Your task to perform on an android device: Go to sound settings Image 0: 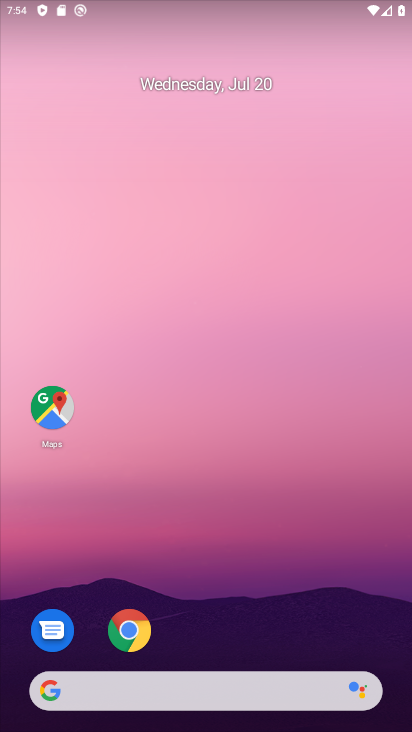
Step 0: drag from (256, 606) to (181, 95)
Your task to perform on an android device: Go to sound settings Image 1: 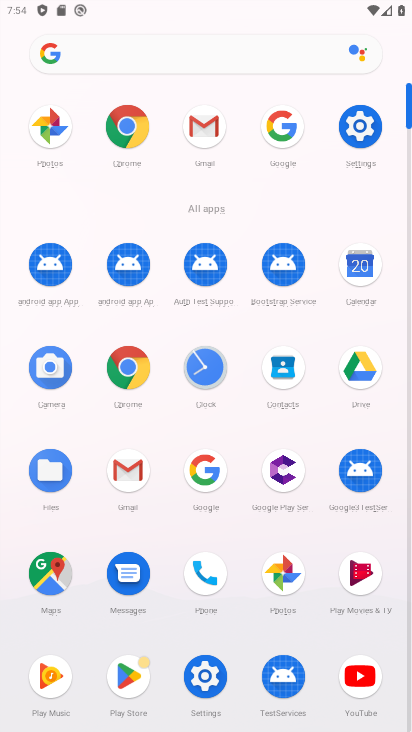
Step 1: click (368, 114)
Your task to perform on an android device: Go to sound settings Image 2: 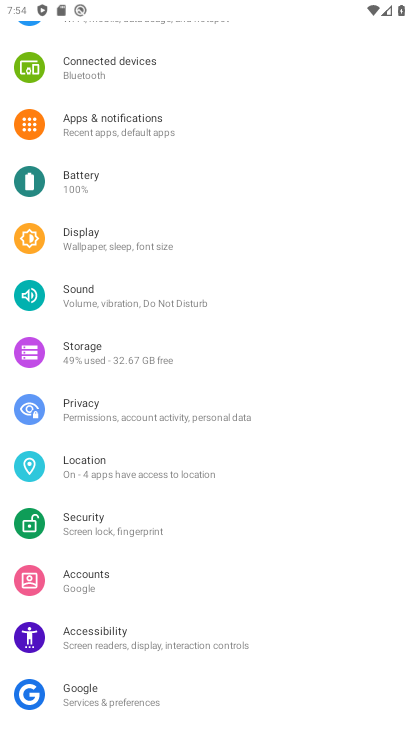
Step 2: click (222, 288)
Your task to perform on an android device: Go to sound settings Image 3: 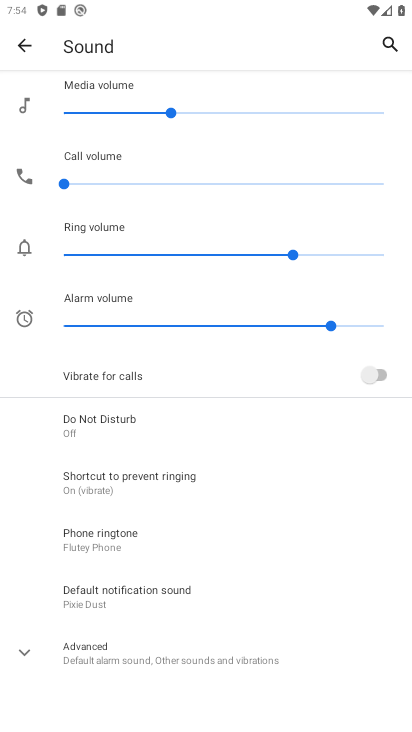
Step 3: task complete